Your task to perform on an android device: turn off notifications in google photos Image 0: 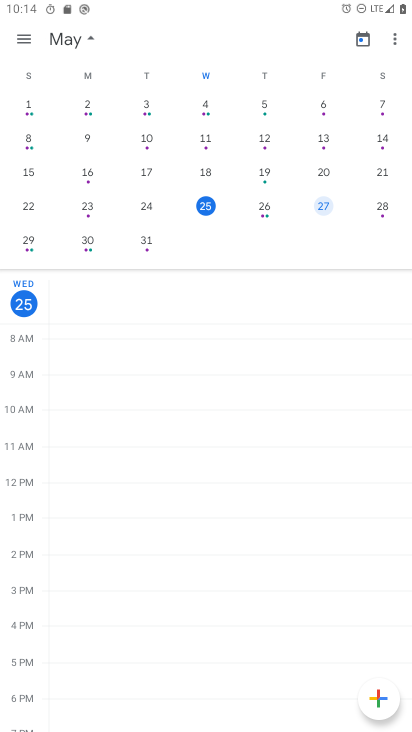
Step 0: press home button
Your task to perform on an android device: turn off notifications in google photos Image 1: 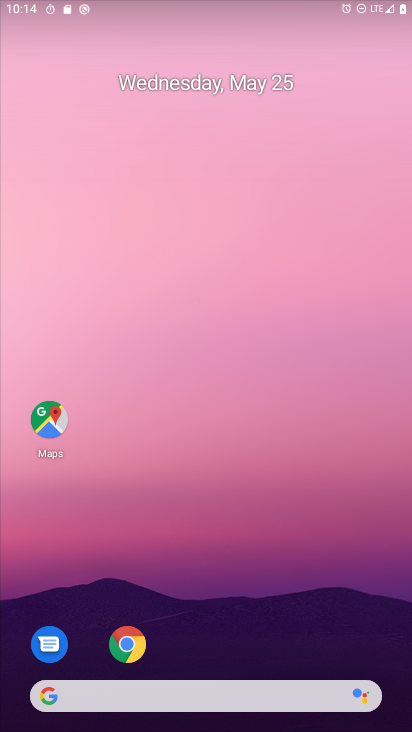
Step 1: drag from (341, 628) to (358, 22)
Your task to perform on an android device: turn off notifications in google photos Image 2: 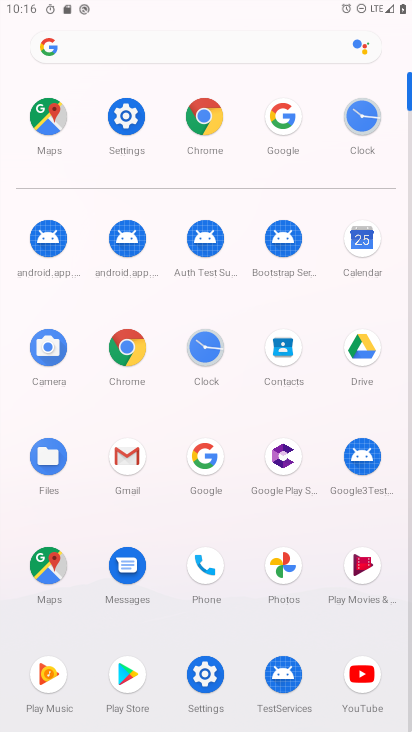
Step 2: click (282, 566)
Your task to perform on an android device: turn off notifications in google photos Image 3: 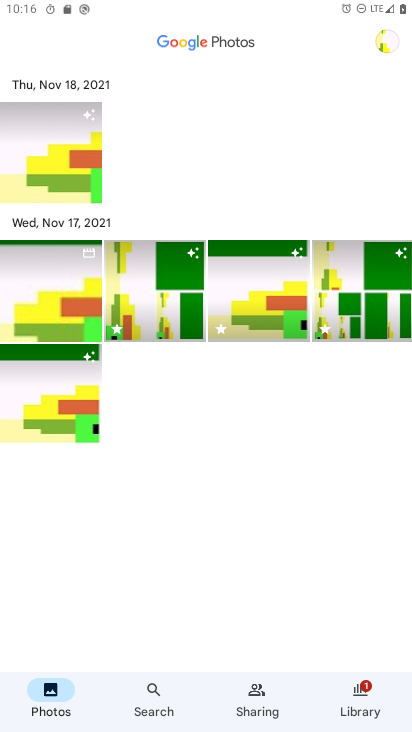
Step 3: click (390, 38)
Your task to perform on an android device: turn off notifications in google photos Image 4: 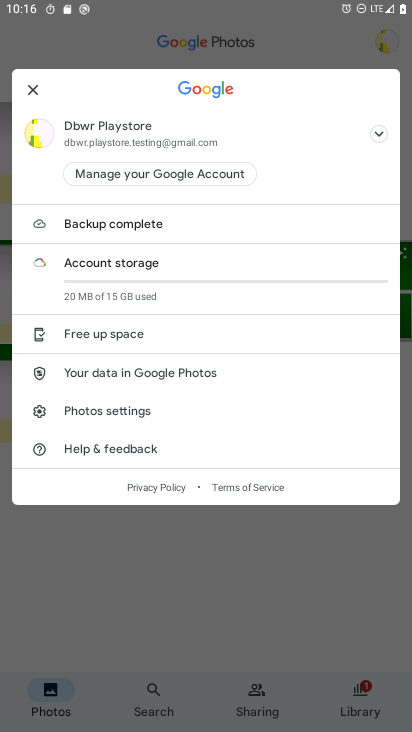
Step 4: click (133, 412)
Your task to perform on an android device: turn off notifications in google photos Image 5: 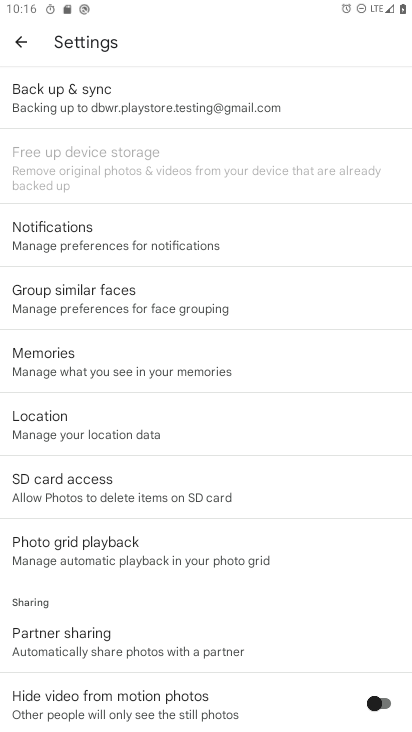
Step 5: click (146, 220)
Your task to perform on an android device: turn off notifications in google photos Image 6: 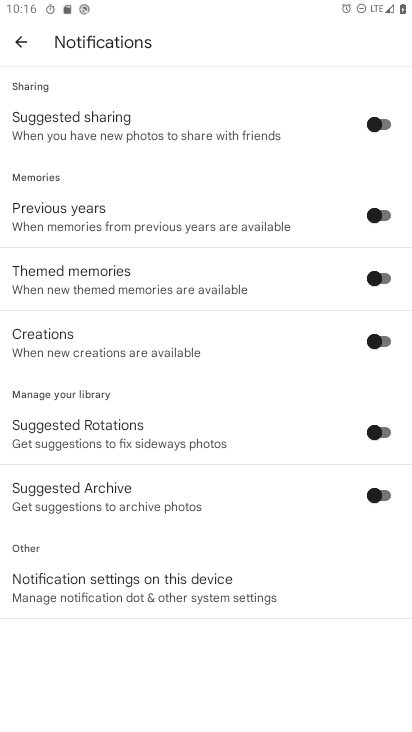
Step 6: task complete